Your task to perform on an android device: Open Google Chrome and open the bookmarks view Image 0: 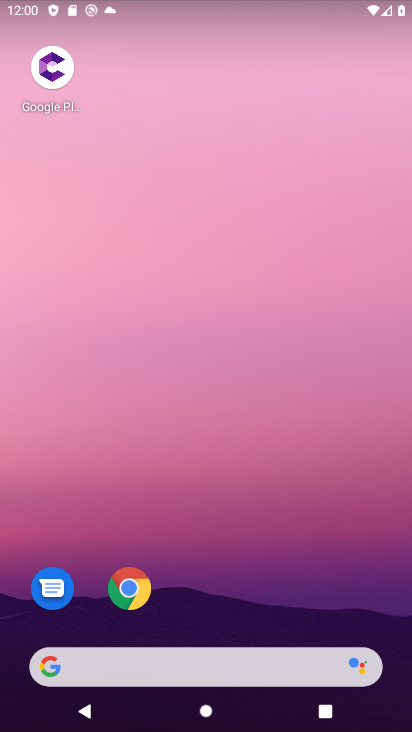
Step 0: click (129, 587)
Your task to perform on an android device: Open Google Chrome and open the bookmarks view Image 1: 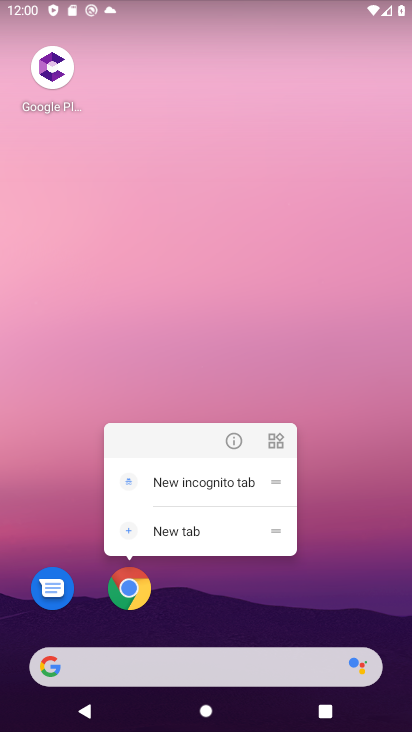
Step 1: click (131, 591)
Your task to perform on an android device: Open Google Chrome and open the bookmarks view Image 2: 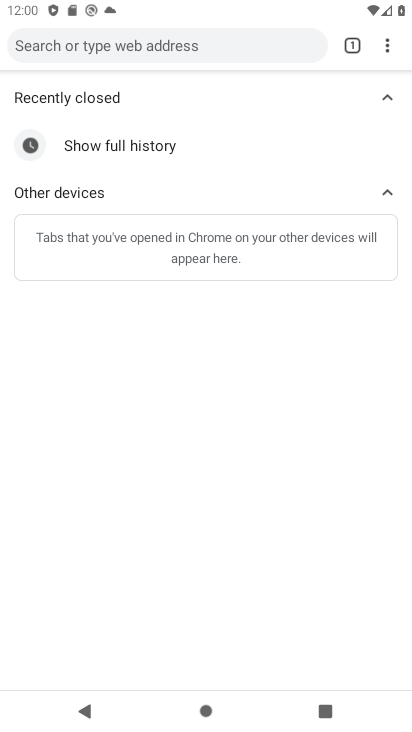
Step 2: click (386, 51)
Your task to perform on an android device: Open Google Chrome and open the bookmarks view Image 3: 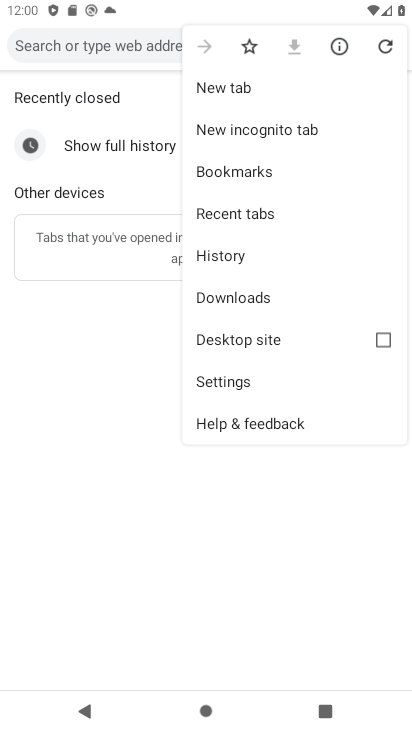
Step 3: click (242, 170)
Your task to perform on an android device: Open Google Chrome and open the bookmarks view Image 4: 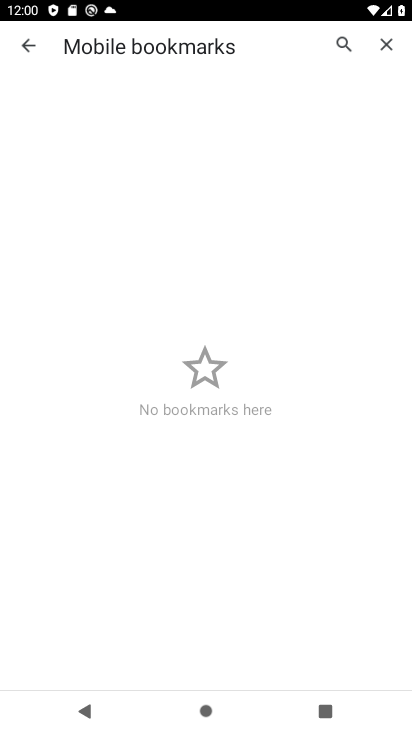
Step 4: task complete